Your task to perform on an android device: When is my next meeting? Image 0: 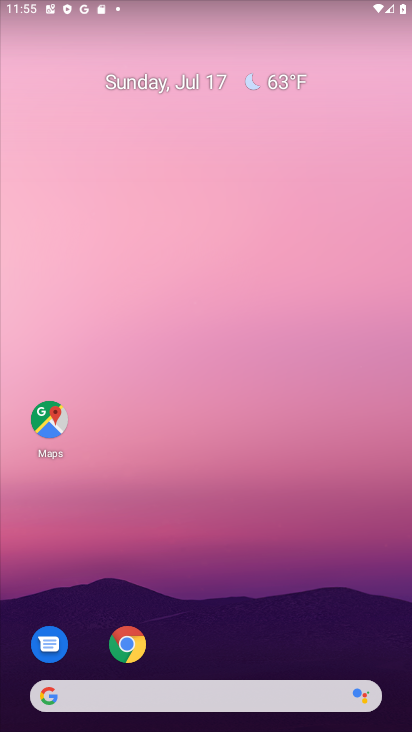
Step 0: drag from (253, 630) to (257, 222)
Your task to perform on an android device: When is my next meeting? Image 1: 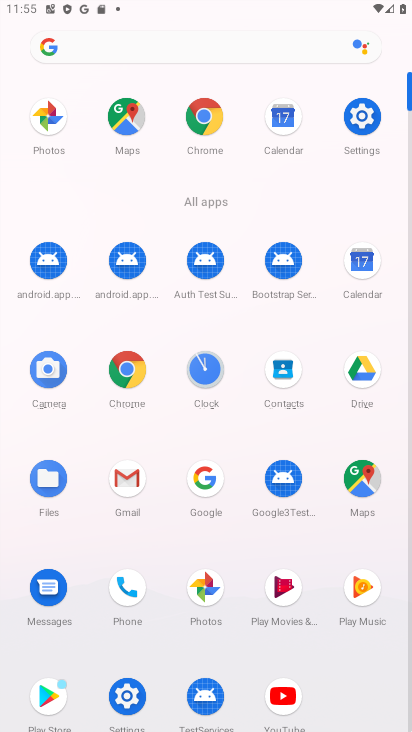
Step 1: click (362, 268)
Your task to perform on an android device: When is my next meeting? Image 2: 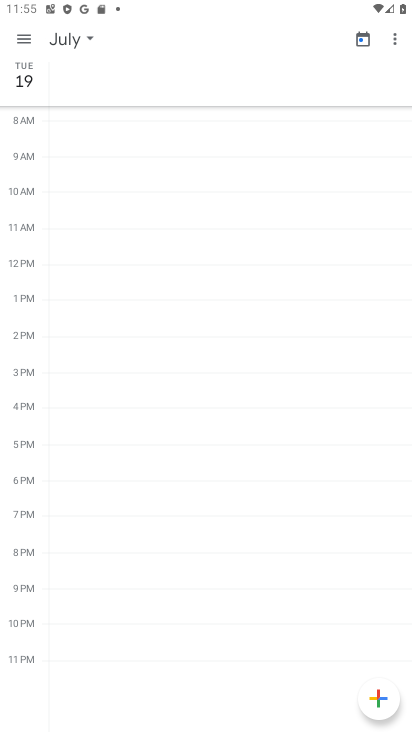
Step 2: click (29, 46)
Your task to perform on an android device: When is my next meeting? Image 3: 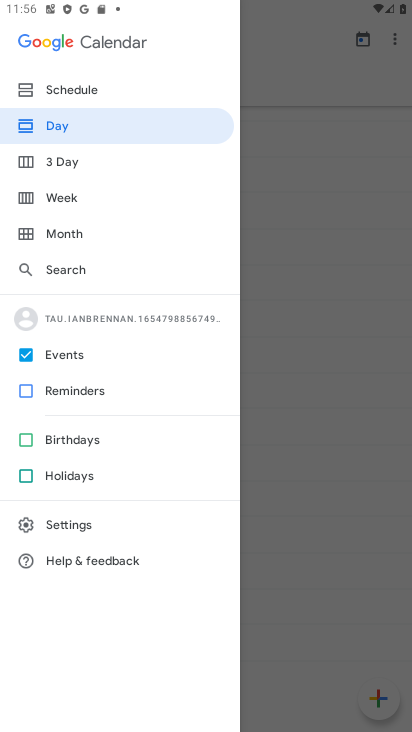
Step 3: click (75, 98)
Your task to perform on an android device: When is my next meeting? Image 4: 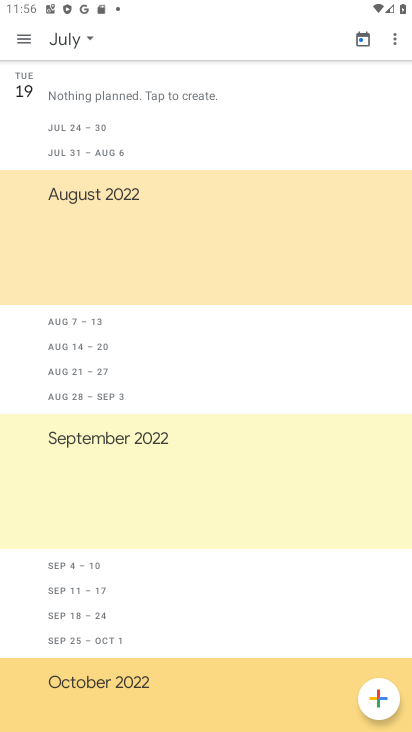
Step 4: task complete